Your task to perform on an android device: change the upload size in google photos Image 0: 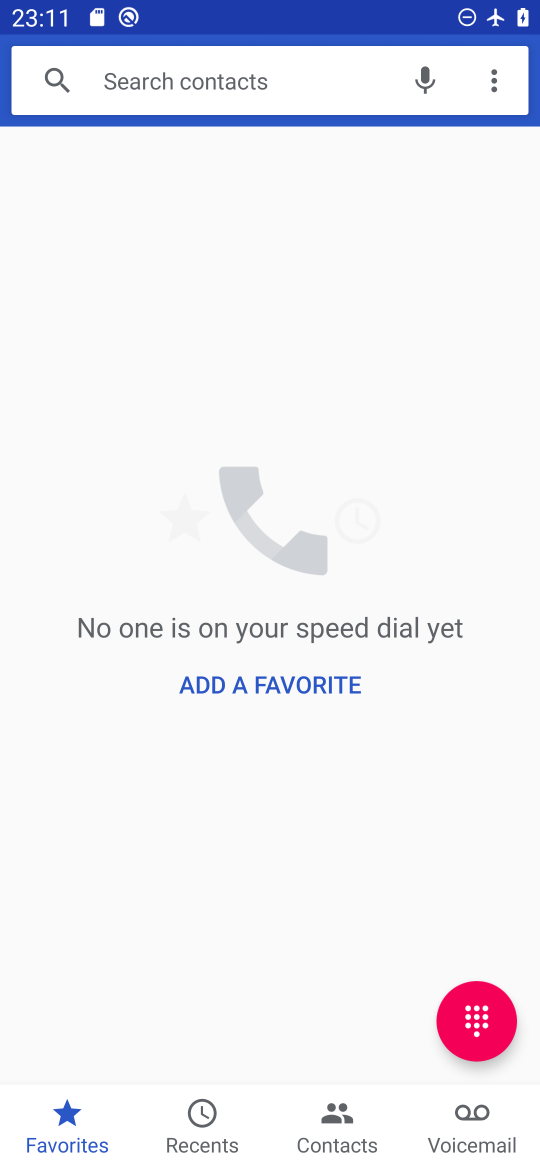
Step 0: press home button
Your task to perform on an android device: change the upload size in google photos Image 1: 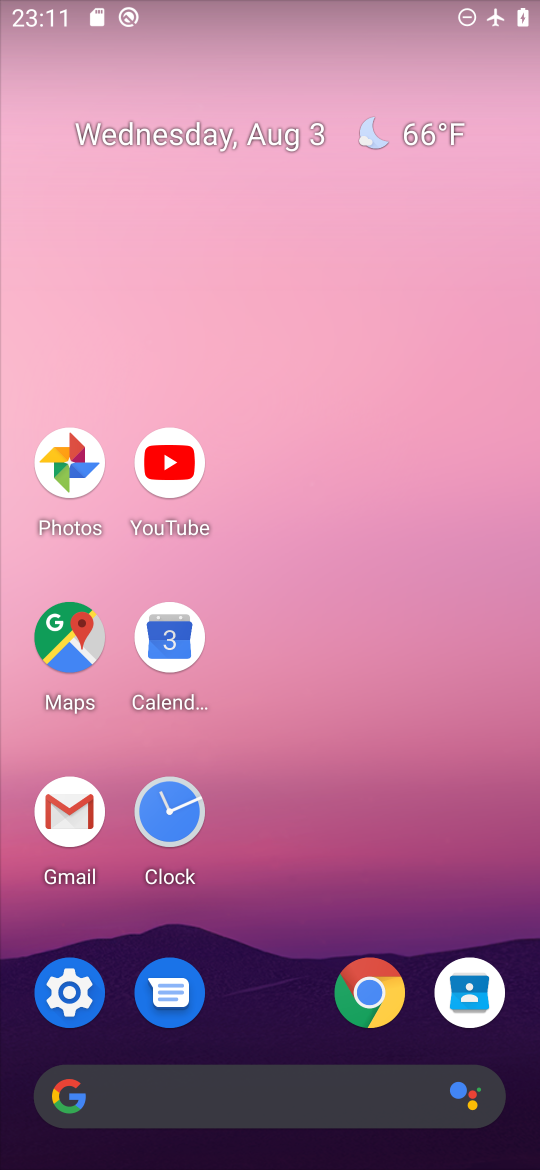
Step 1: click (70, 466)
Your task to perform on an android device: change the upload size in google photos Image 2: 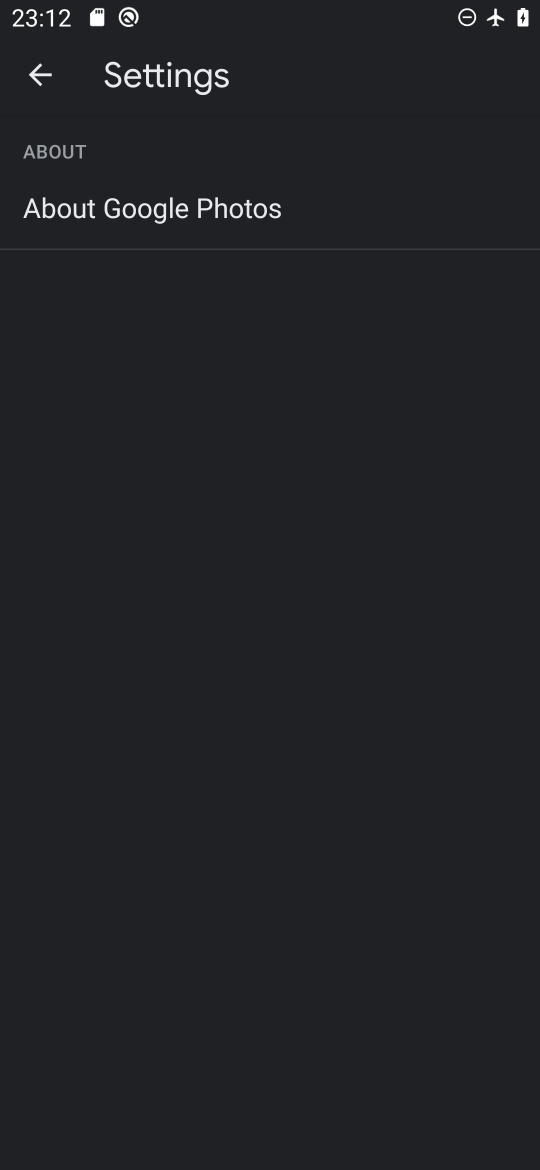
Step 2: click (43, 67)
Your task to perform on an android device: change the upload size in google photos Image 3: 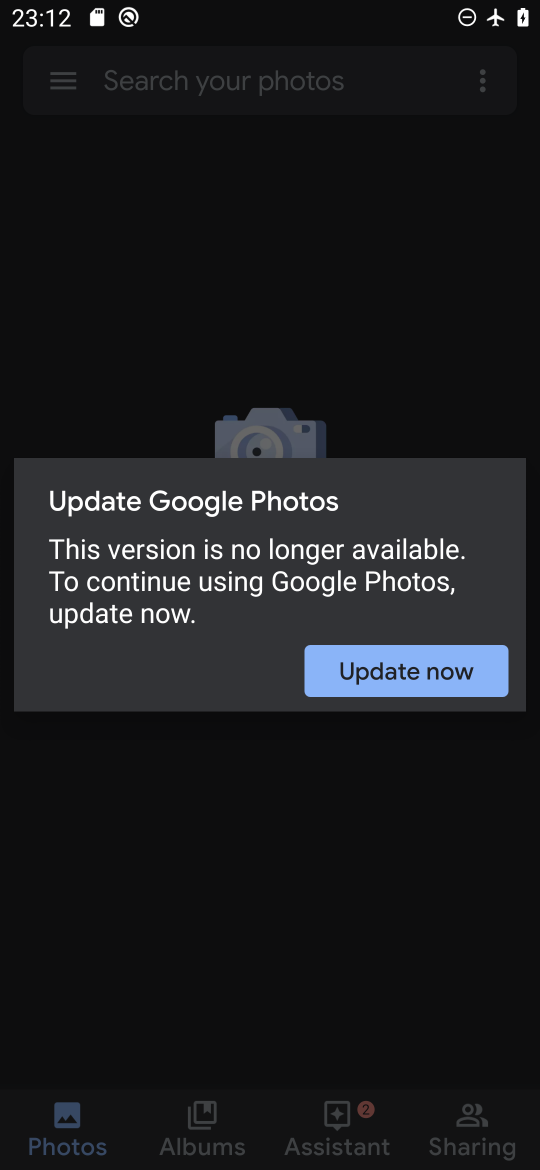
Step 3: click (396, 675)
Your task to perform on an android device: change the upload size in google photos Image 4: 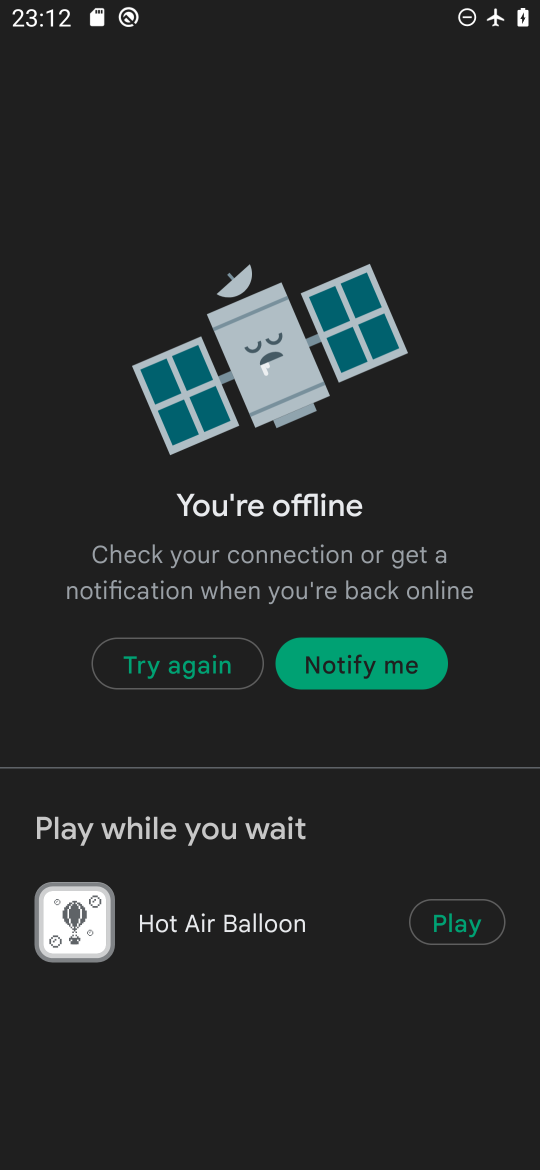
Step 4: click (219, 661)
Your task to perform on an android device: change the upload size in google photos Image 5: 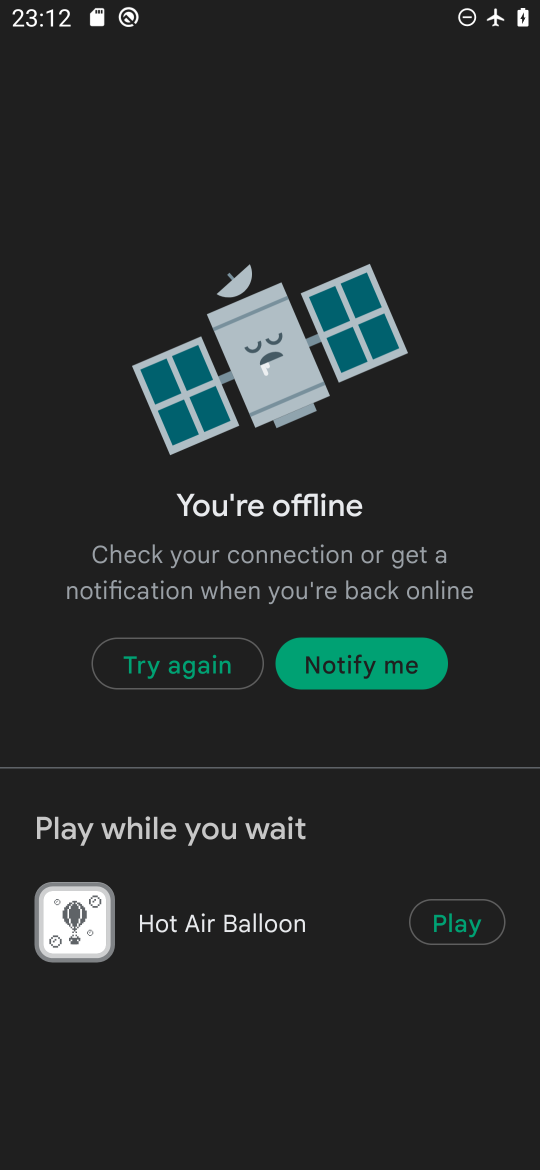
Step 5: click (201, 666)
Your task to perform on an android device: change the upload size in google photos Image 6: 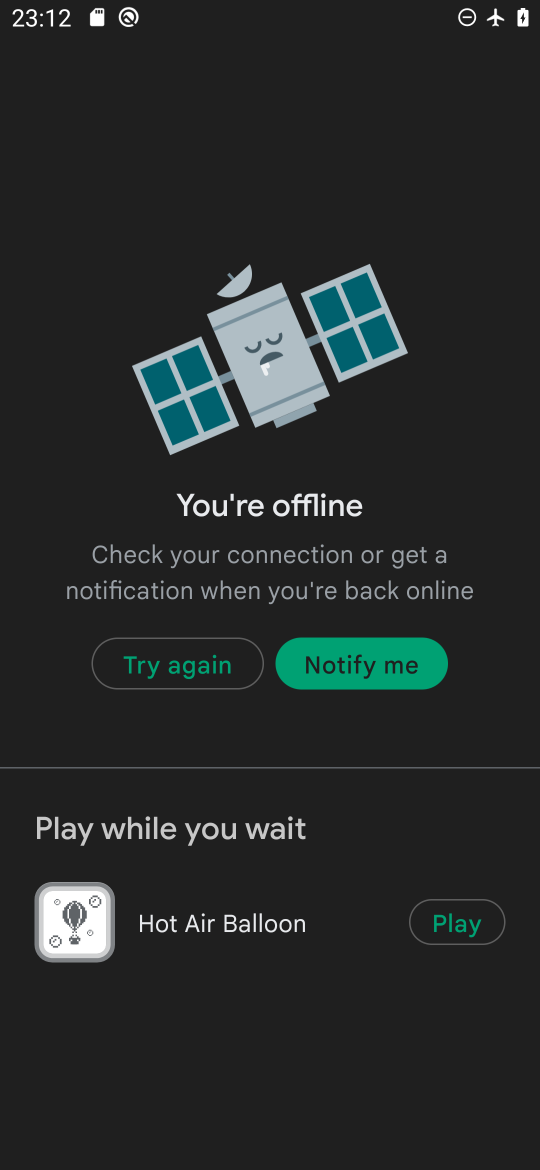
Step 6: click (201, 666)
Your task to perform on an android device: change the upload size in google photos Image 7: 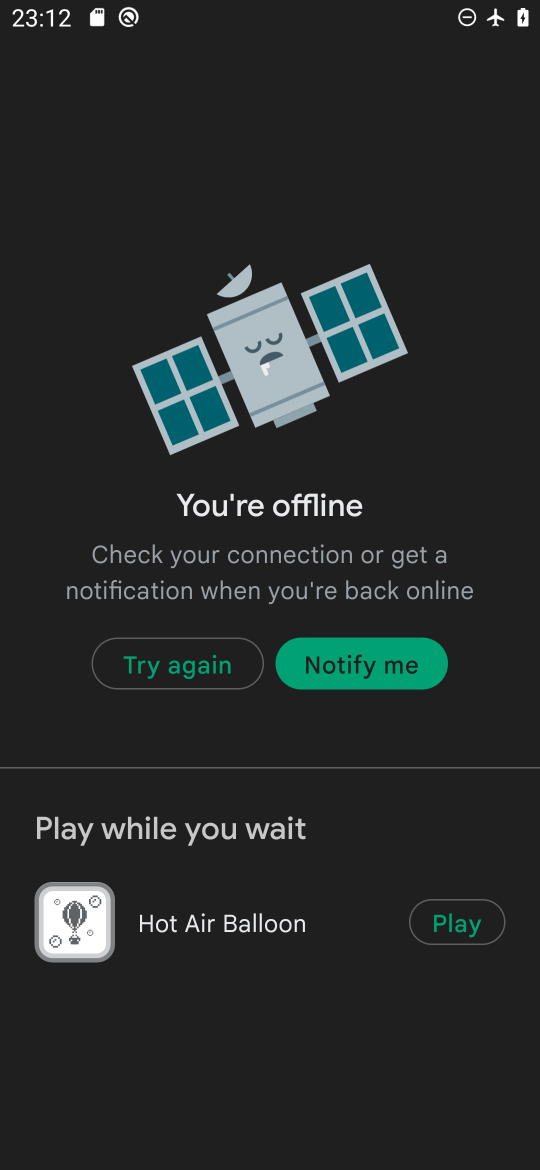
Step 7: click (201, 666)
Your task to perform on an android device: change the upload size in google photos Image 8: 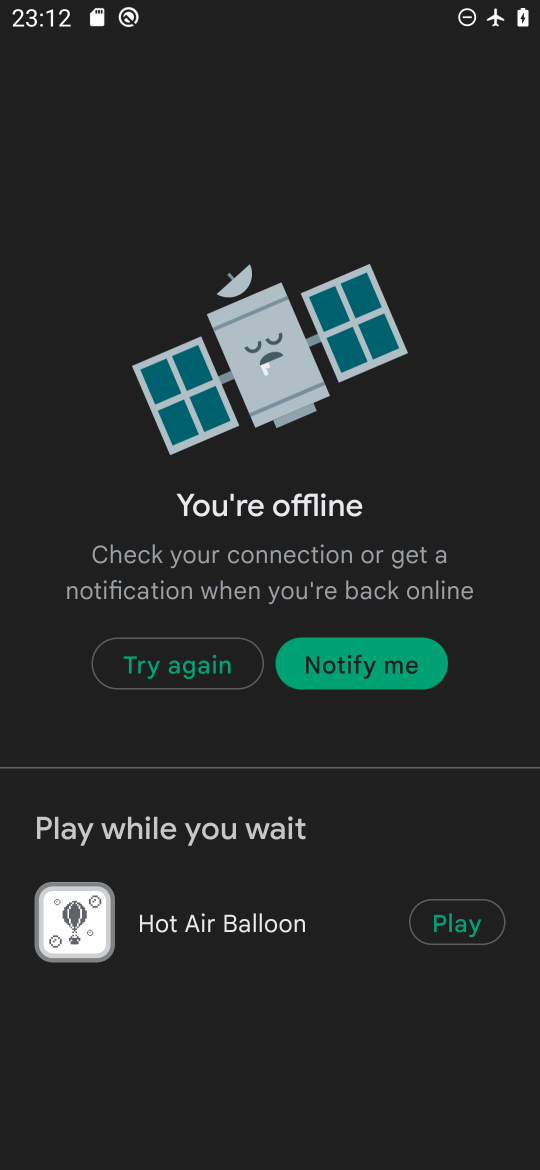
Step 8: click (201, 666)
Your task to perform on an android device: change the upload size in google photos Image 9: 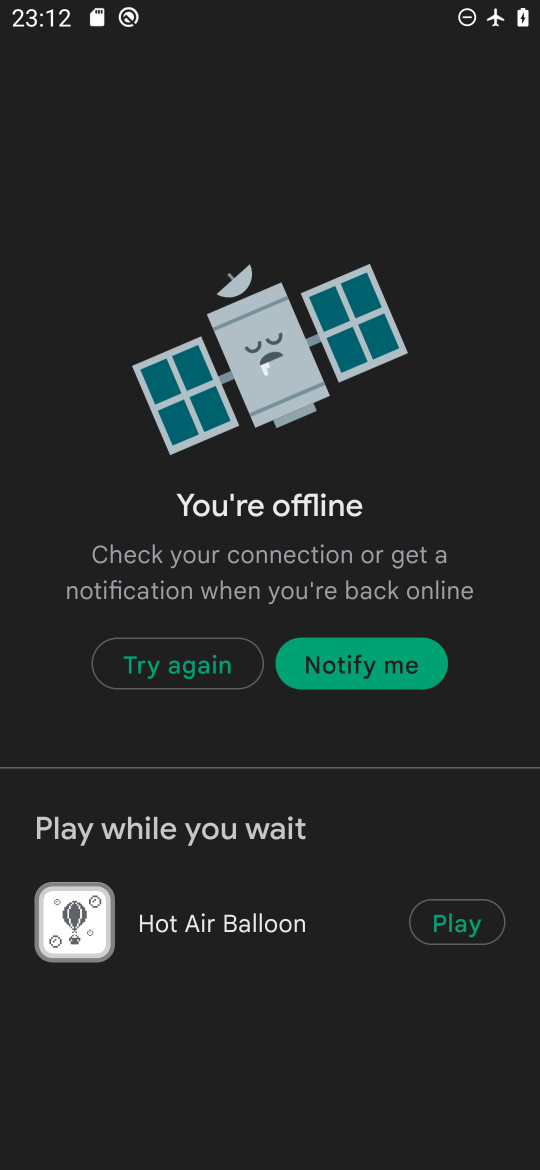
Step 9: click (201, 666)
Your task to perform on an android device: change the upload size in google photos Image 10: 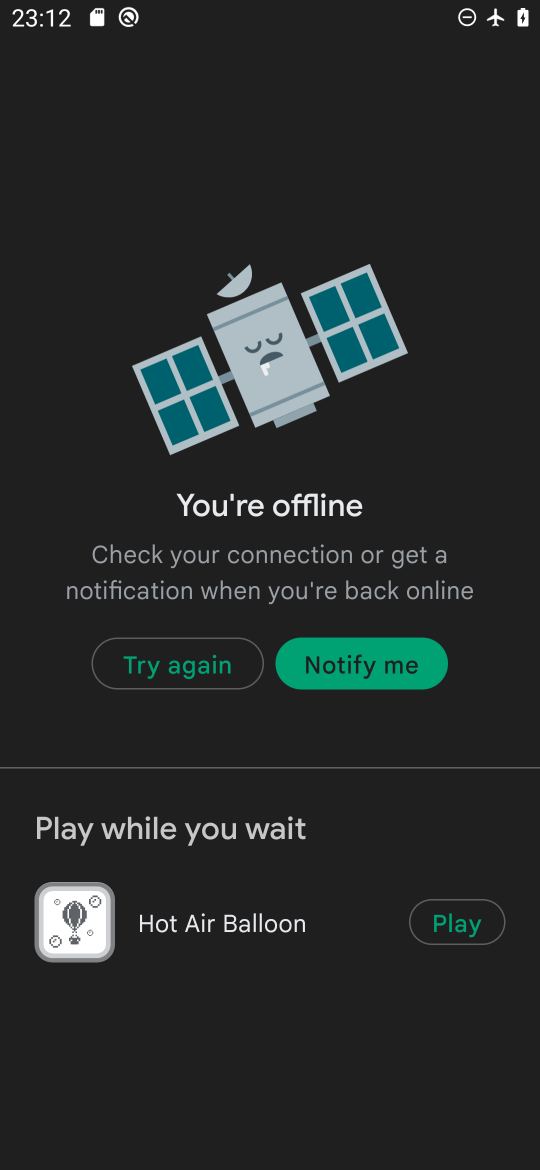
Step 10: click (201, 666)
Your task to perform on an android device: change the upload size in google photos Image 11: 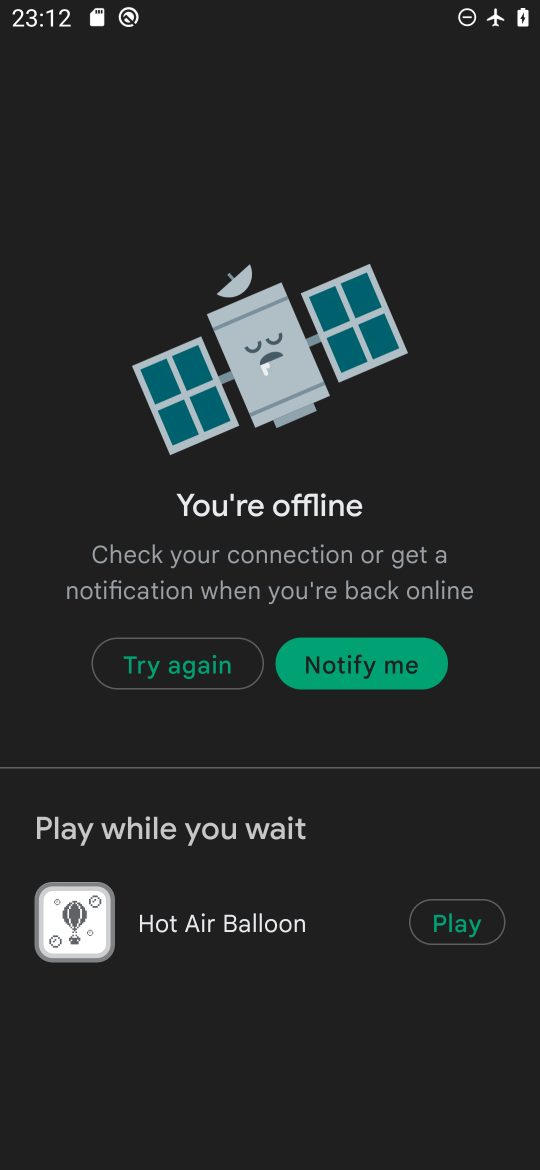
Step 11: click (201, 666)
Your task to perform on an android device: change the upload size in google photos Image 12: 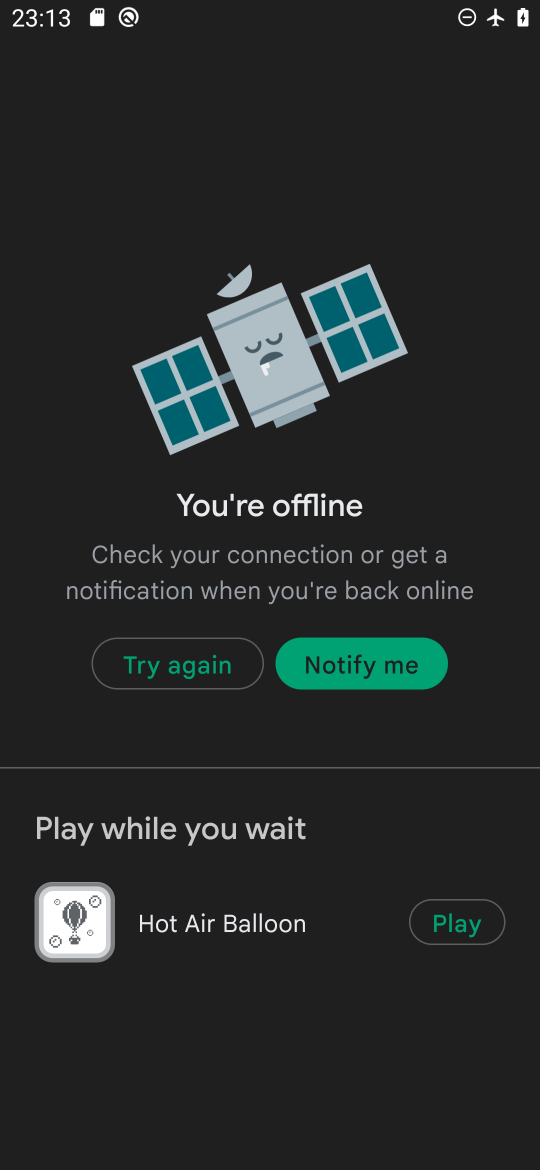
Step 12: click (201, 666)
Your task to perform on an android device: change the upload size in google photos Image 13: 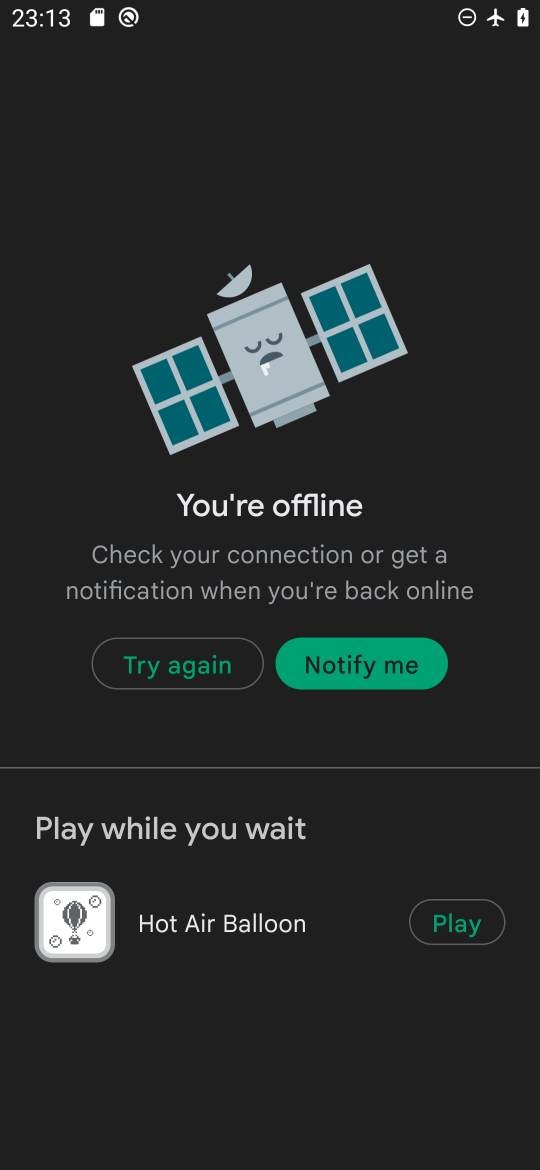
Step 13: click (201, 666)
Your task to perform on an android device: change the upload size in google photos Image 14: 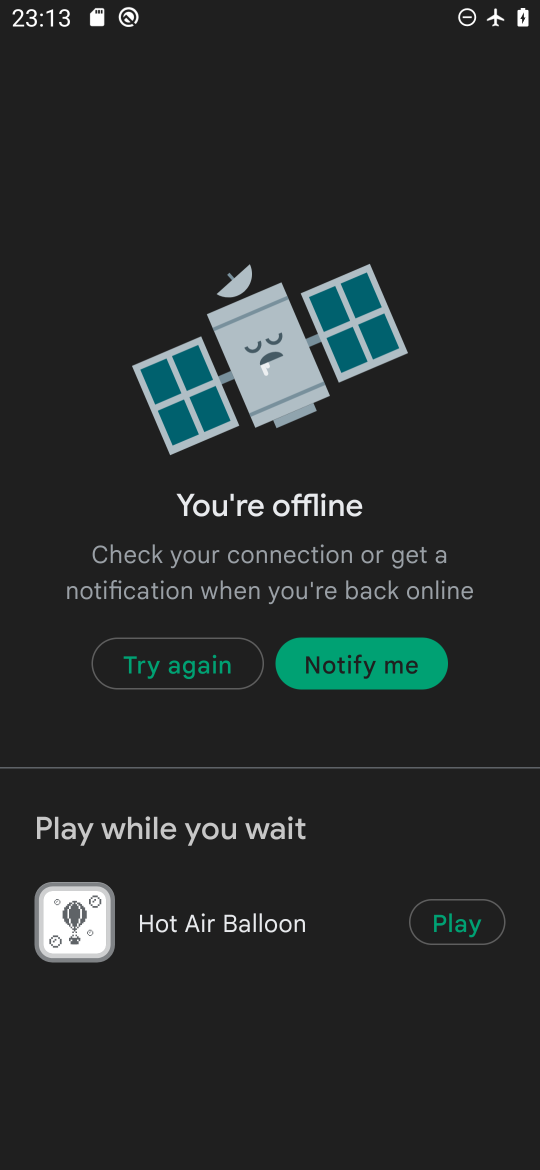
Step 14: click (201, 666)
Your task to perform on an android device: change the upload size in google photos Image 15: 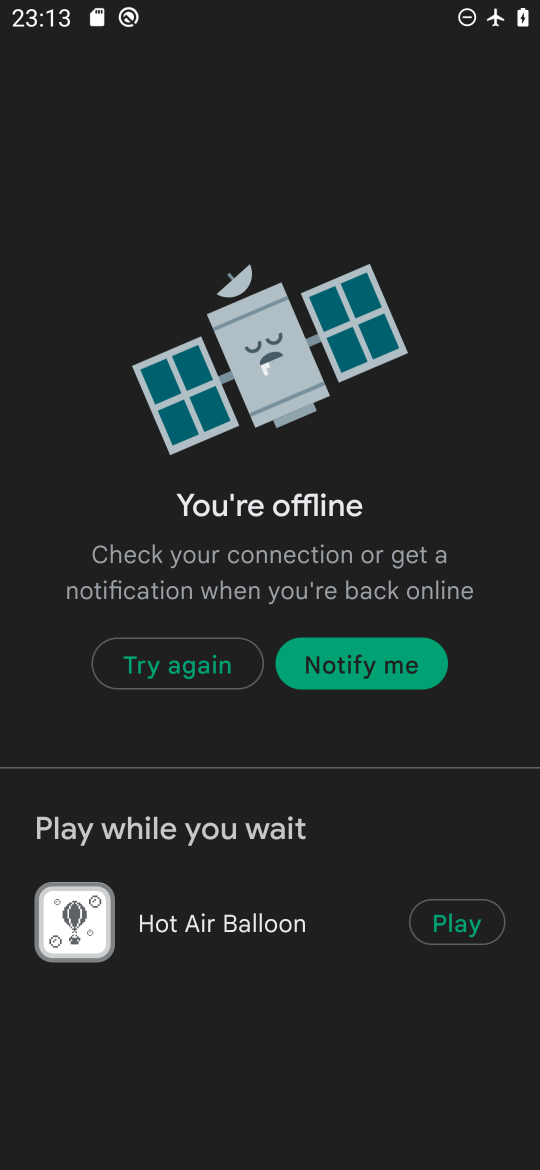
Step 15: click (201, 666)
Your task to perform on an android device: change the upload size in google photos Image 16: 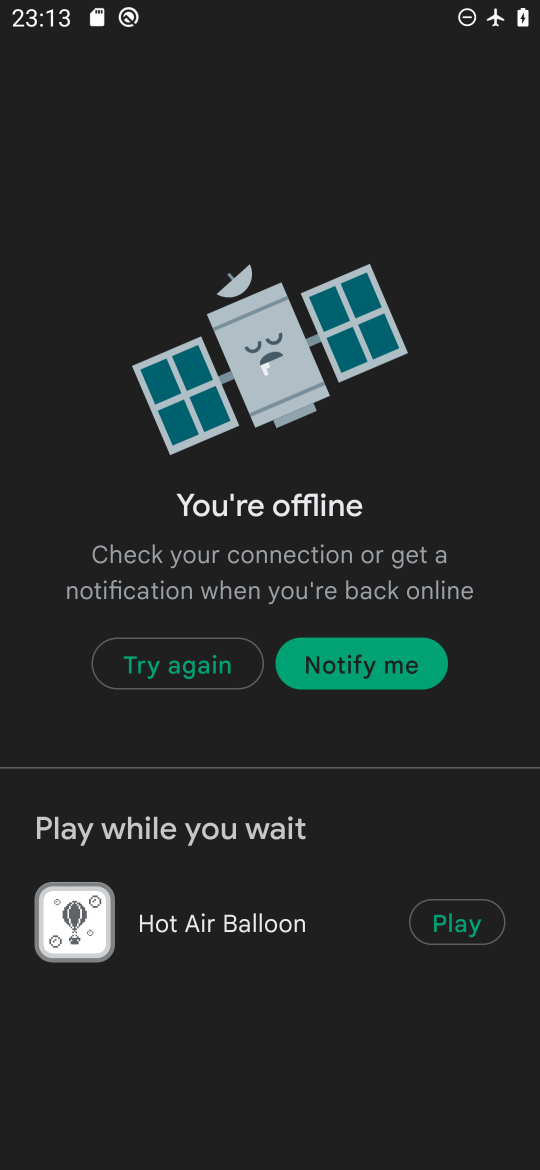
Step 16: click (203, 663)
Your task to perform on an android device: change the upload size in google photos Image 17: 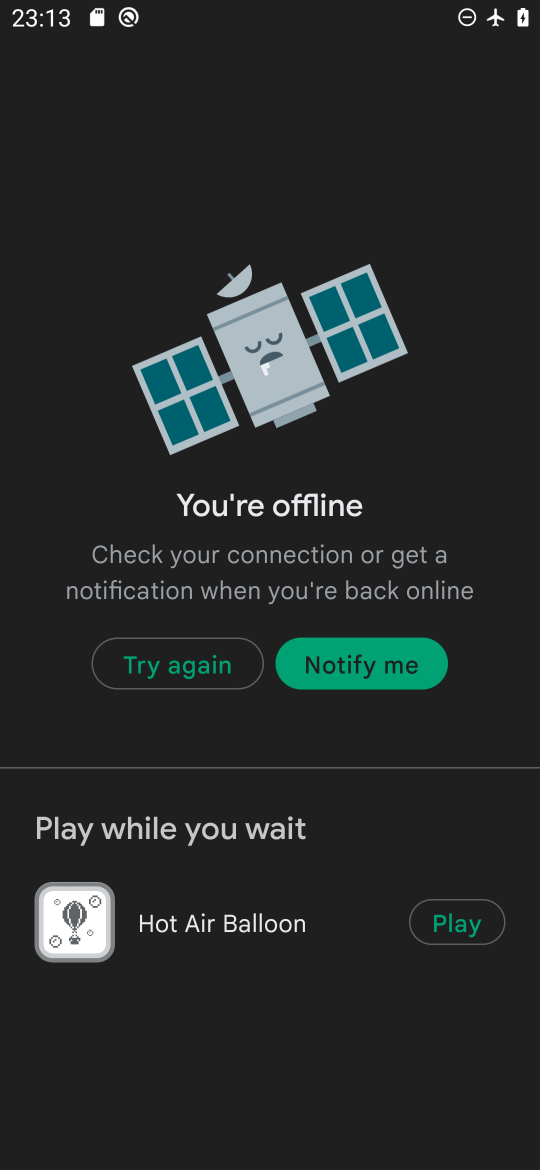
Step 17: task complete